Your task to perform on an android device: Go to calendar. Show me events next week Image 0: 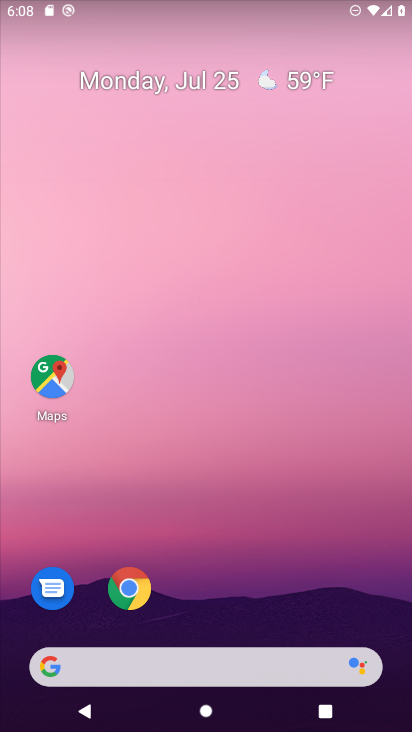
Step 0: drag from (323, 568) to (298, 86)
Your task to perform on an android device: Go to calendar. Show me events next week Image 1: 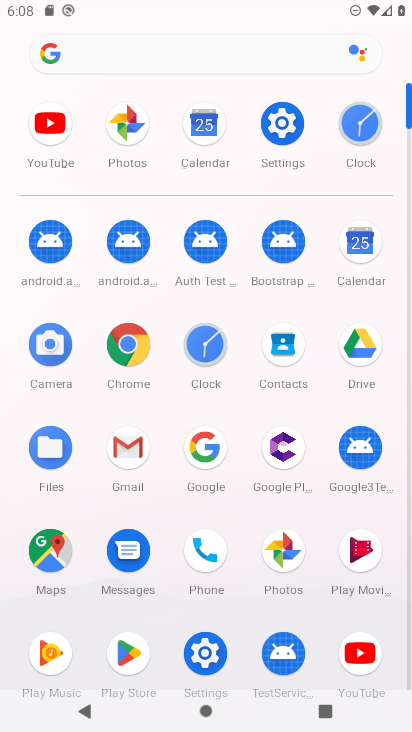
Step 1: click (363, 249)
Your task to perform on an android device: Go to calendar. Show me events next week Image 2: 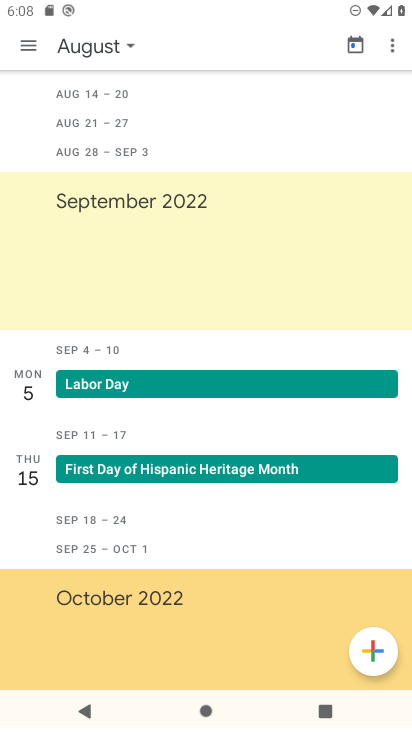
Step 2: task complete